Your task to perform on an android device: show emergency info Image 0: 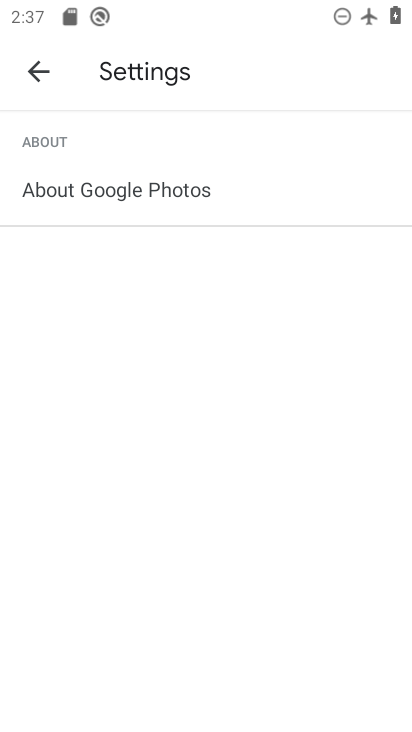
Step 0: press home button
Your task to perform on an android device: show emergency info Image 1: 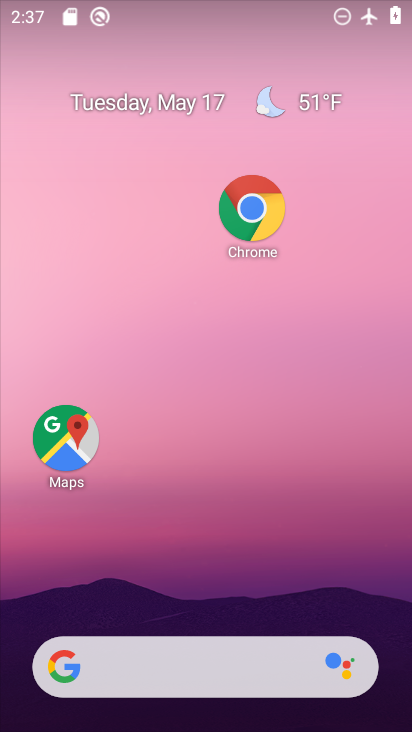
Step 1: drag from (208, 609) to (164, 81)
Your task to perform on an android device: show emergency info Image 2: 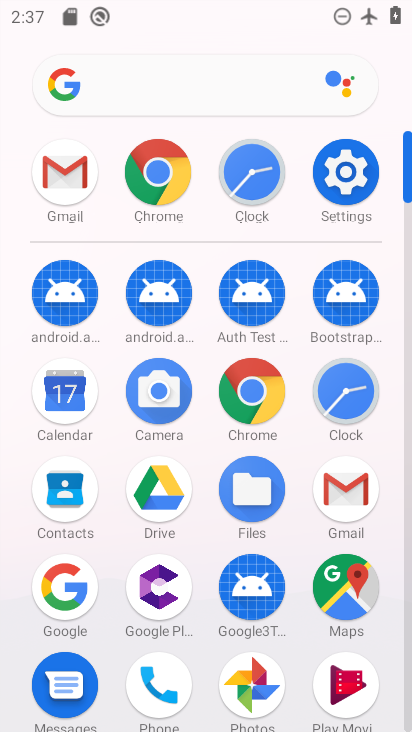
Step 2: click (327, 173)
Your task to perform on an android device: show emergency info Image 3: 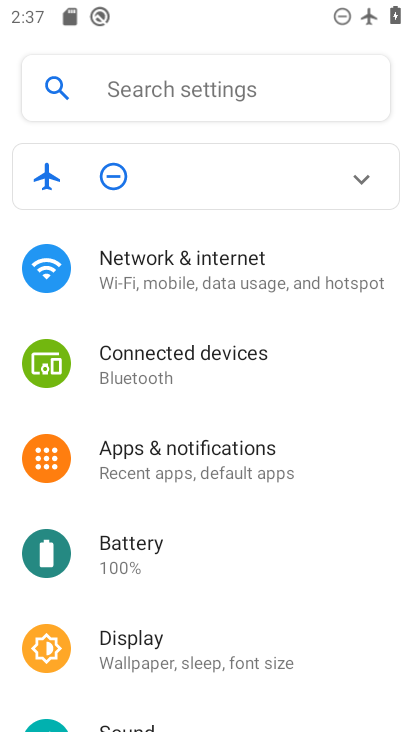
Step 3: drag from (216, 583) to (192, 234)
Your task to perform on an android device: show emergency info Image 4: 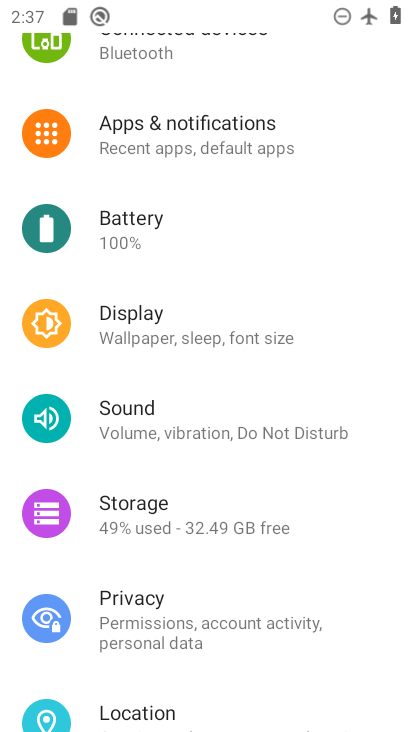
Step 4: drag from (150, 597) to (106, 84)
Your task to perform on an android device: show emergency info Image 5: 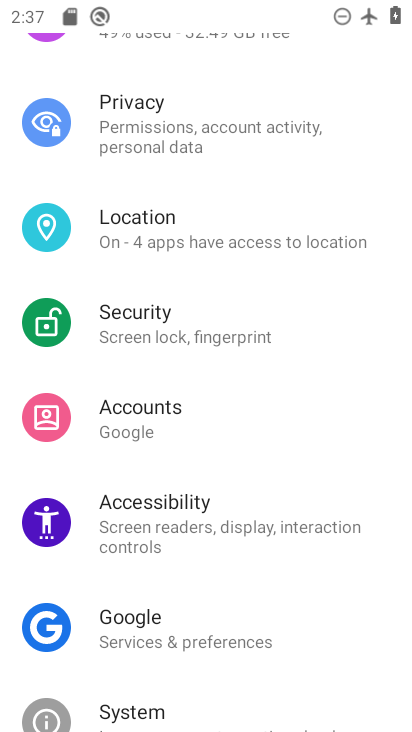
Step 5: drag from (171, 699) to (120, 135)
Your task to perform on an android device: show emergency info Image 6: 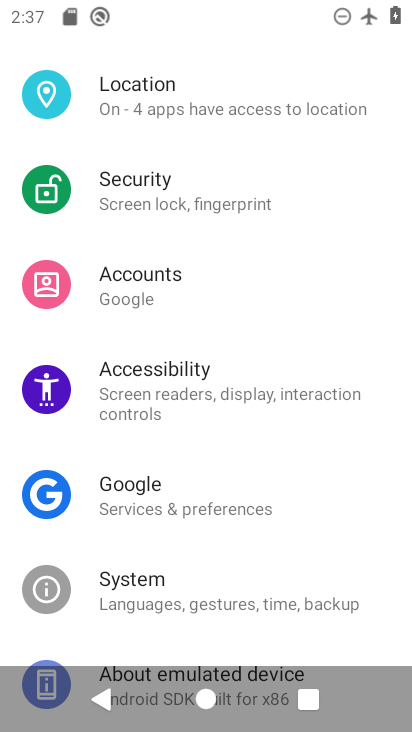
Step 6: click (125, 652)
Your task to perform on an android device: show emergency info Image 7: 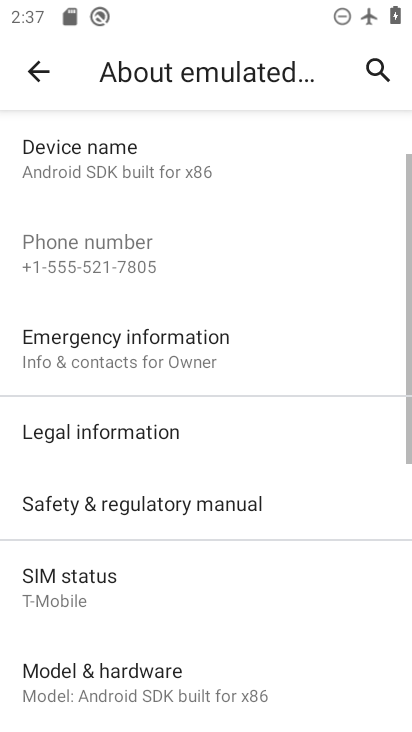
Step 7: click (90, 340)
Your task to perform on an android device: show emergency info Image 8: 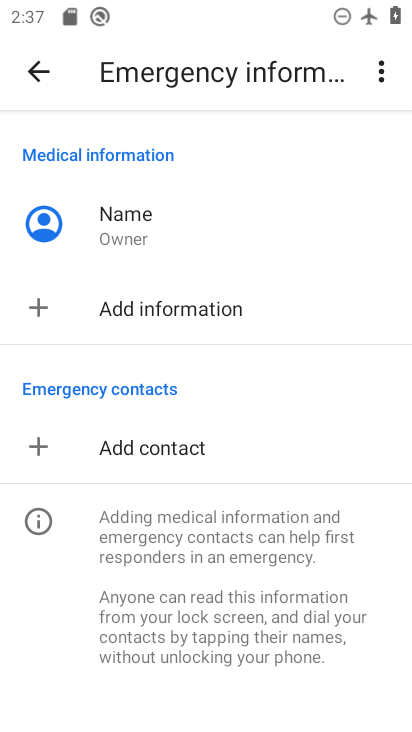
Step 8: task complete